Your task to perform on an android device: turn off picture-in-picture Image 0: 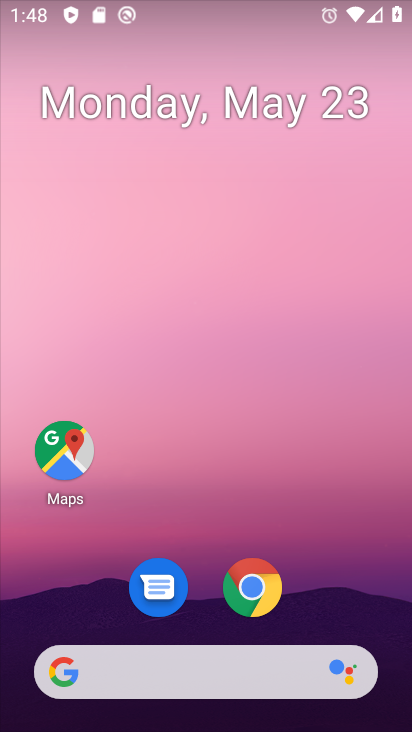
Step 0: drag from (389, 579) to (358, 96)
Your task to perform on an android device: turn off picture-in-picture Image 1: 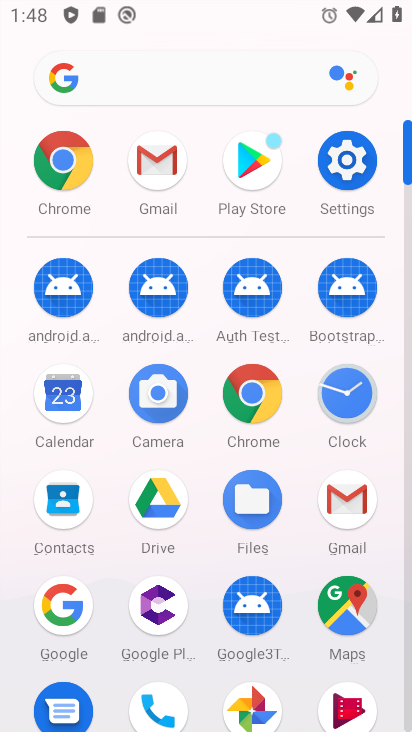
Step 1: click (372, 176)
Your task to perform on an android device: turn off picture-in-picture Image 2: 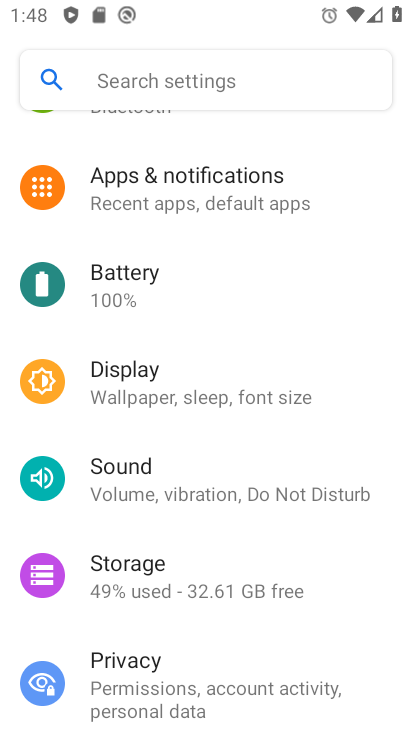
Step 2: drag from (189, 223) to (156, 350)
Your task to perform on an android device: turn off picture-in-picture Image 3: 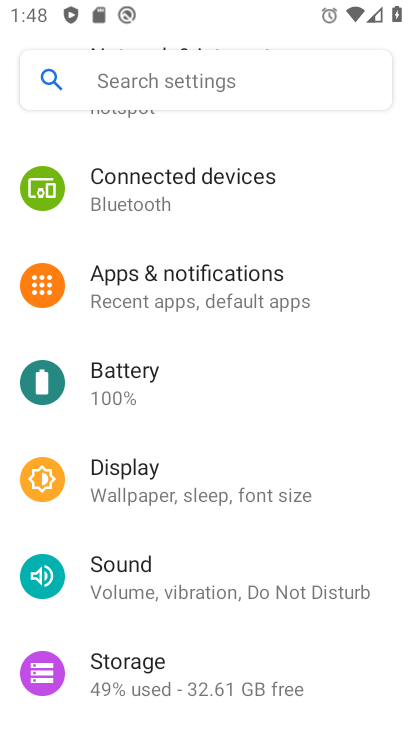
Step 3: drag from (156, 350) to (159, 414)
Your task to perform on an android device: turn off picture-in-picture Image 4: 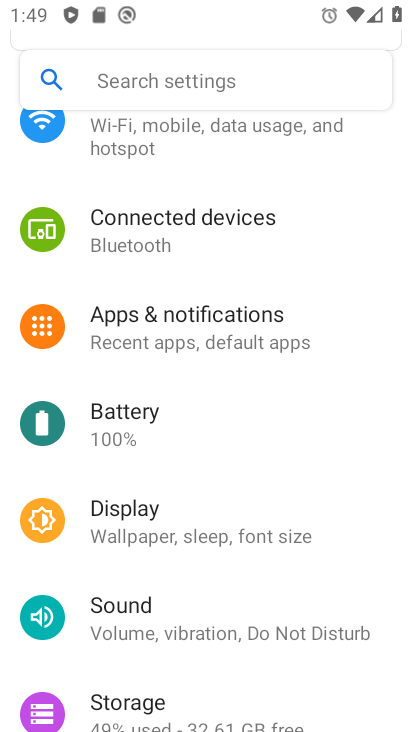
Step 4: drag from (197, 521) to (218, 302)
Your task to perform on an android device: turn off picture-in-picture Image 5: 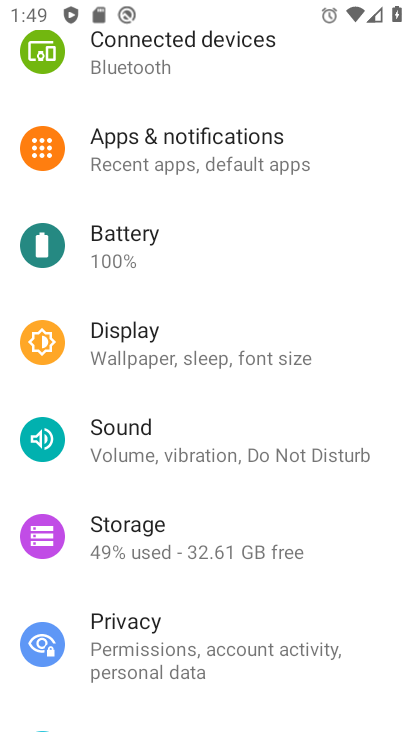
Step 5: drag from (229, 709) to (260, 500)
Your task to perform on an android device: turn off picture-in-picture Image 6: 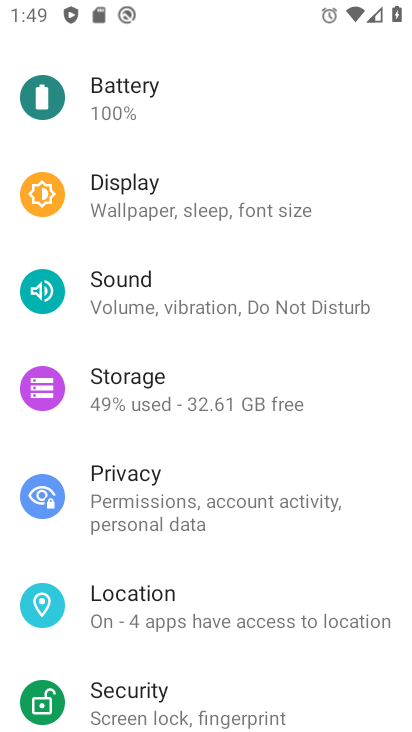
Step 6: click (209, 204)
Your task to perform on an android device: turn off picture-in-picture Image 7: 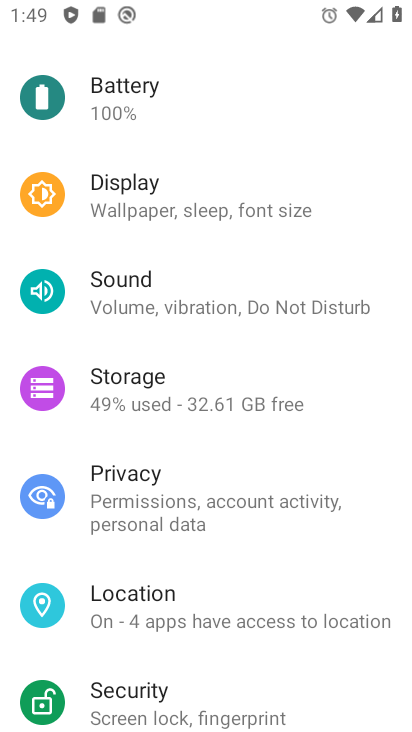
Step 7: drag from (209, 204) to (222, 580)
Your task to perform on an android device: turn off picture-in-picture Image 8: 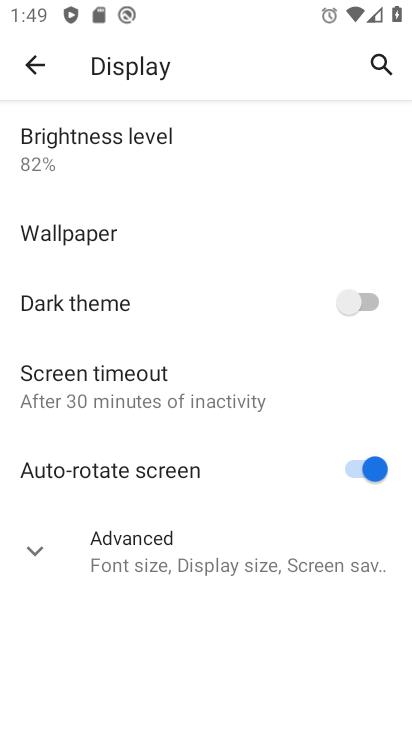
Step 8: click (68, 65)
Your task to perform on an android device: turn off picture-in-picture Image 9: 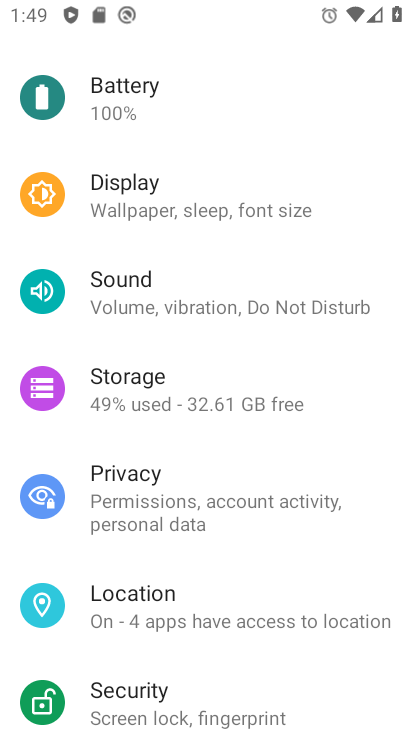
Step 9: drag from (101, 193) to (123, 566)
Your task to perform on an android device: turn off picture-in-picture Image 10: 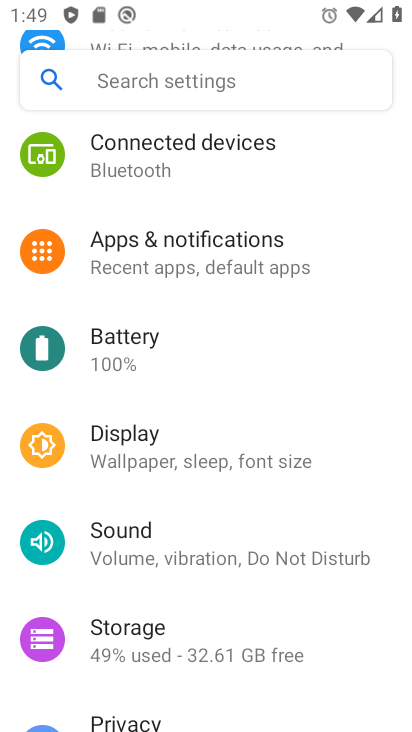
Step 10: click (216, 277)
Your task to perform on an android device: turn off picture-in-picture Image 11: 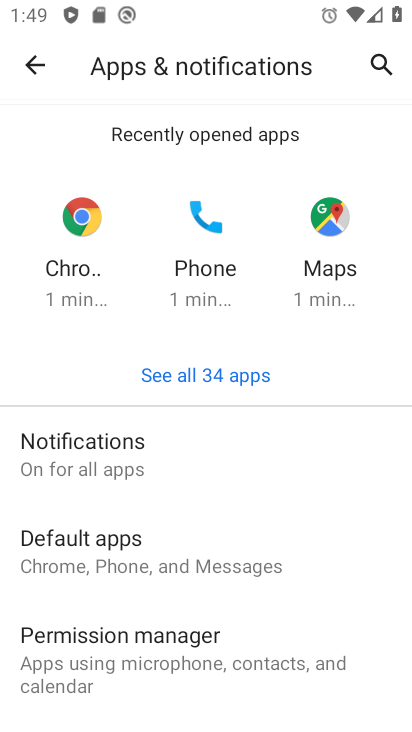
Step 11: click (216, 473)
Your task to perform on an android device: turn off picture-in-picture Image 12: 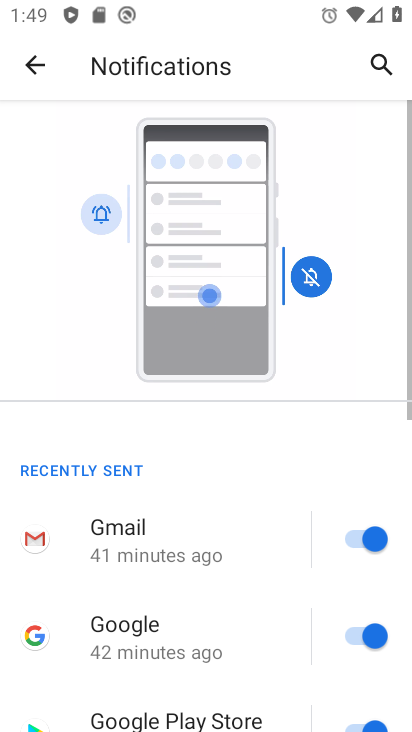
Step 12: drag from (225, 567) to (239, 224)
Your task to perform on an android device: turn off picture-in-picture Image 13: 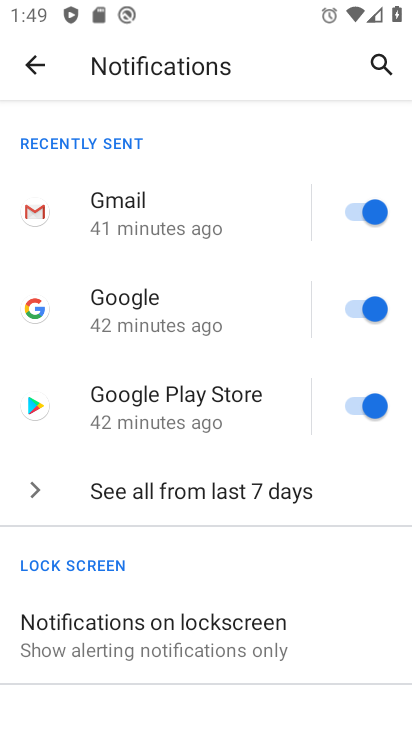
Step 13: click (201, 612)
Your task to perform on an android device: turn off picture-in-picture Image 14: 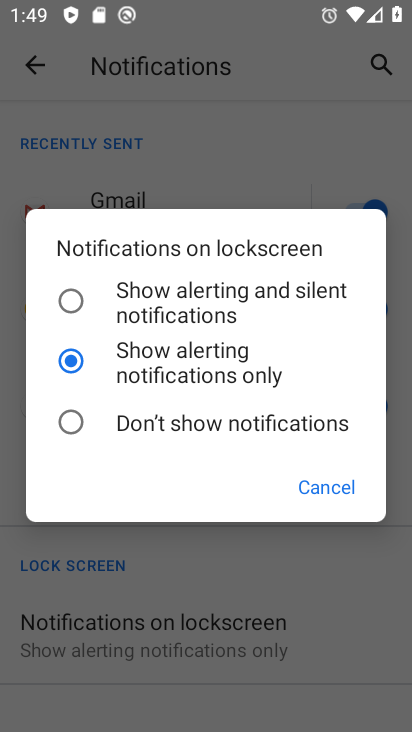
Step 14: task complete